Your task to perform on an android device: Open Wikipedia Image 0: 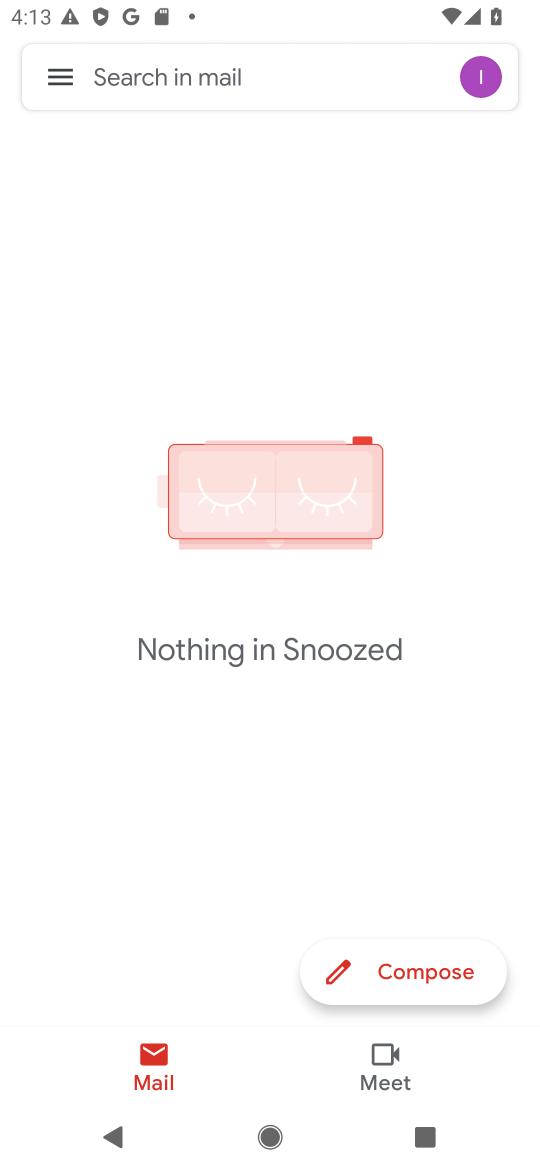
Step 0: press home button
Your task to perform on an android device: Open Wikipedia Image 1: 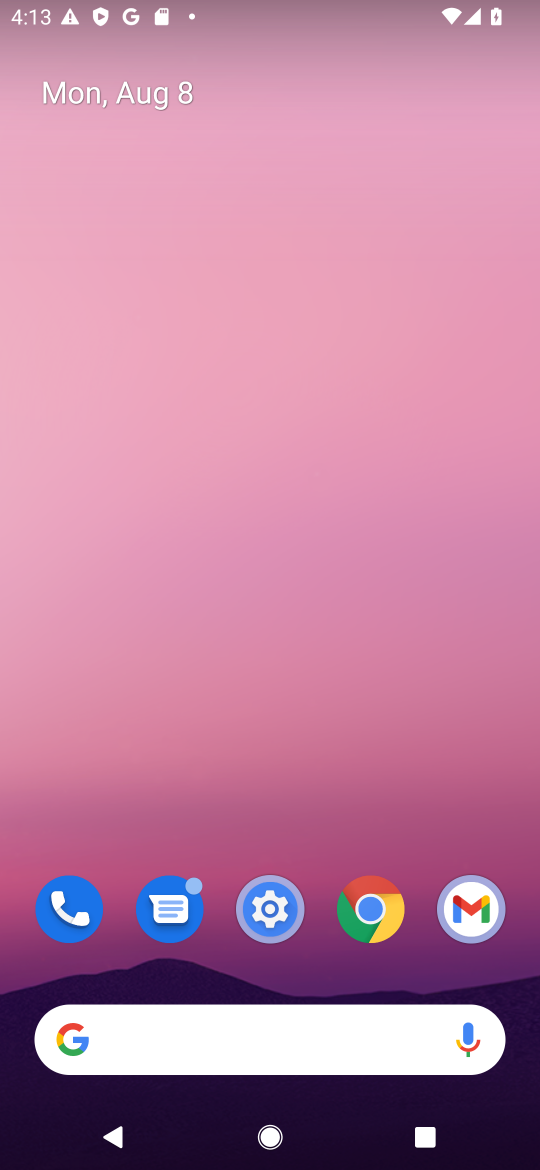
Step 1: click (372, 909)
Your task to perform on an android device: Open Wikipedia Image 2: 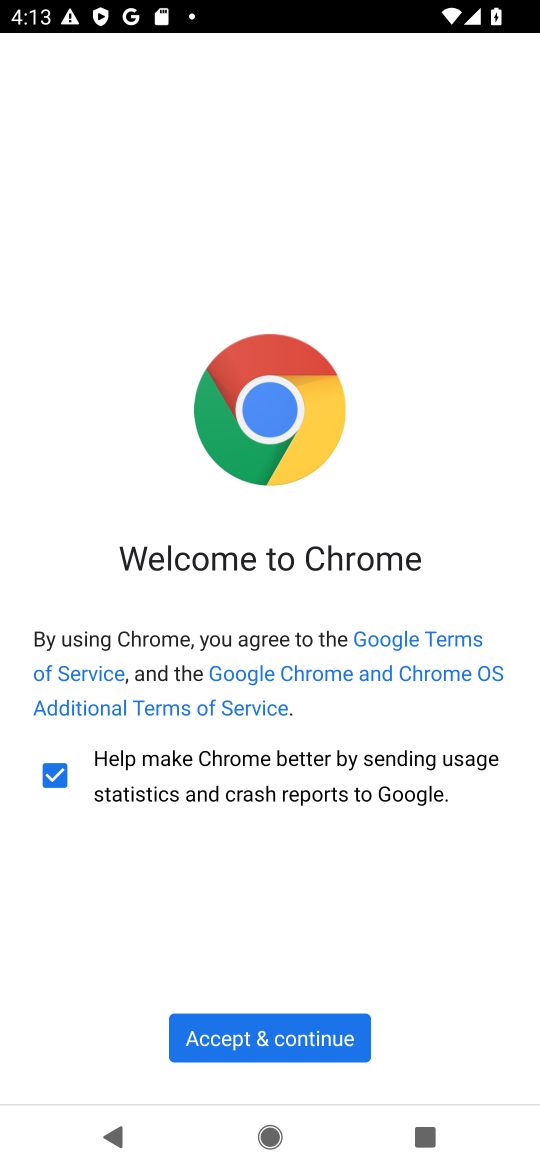
Step 2: click (259, 1039)
Your task to perform on an android device: Open Wikipedia Image 3: 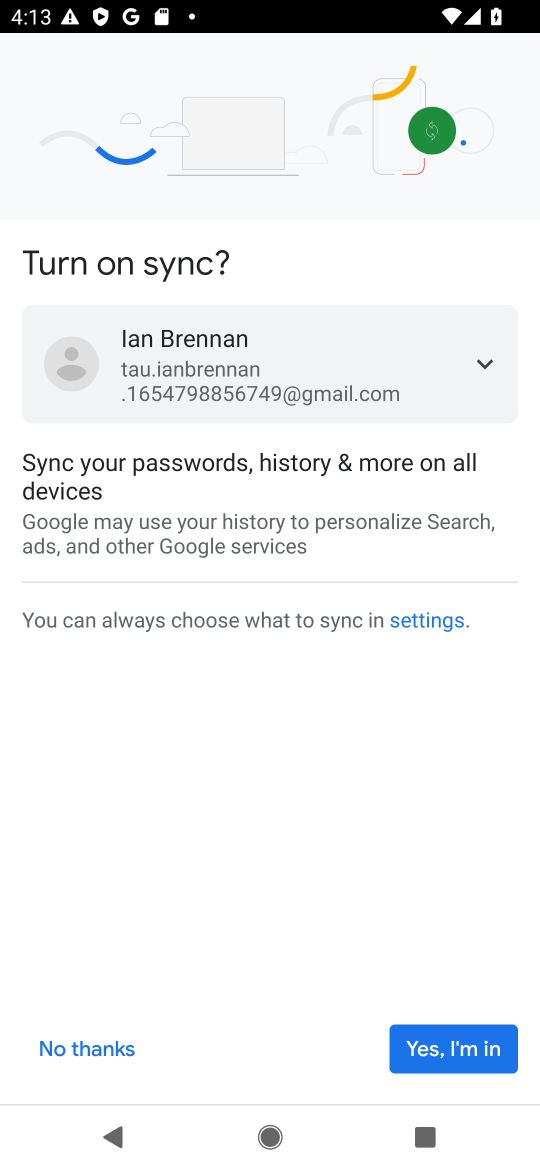
Step 3: click (466, 1046)
Your task to perform on an android device: Open Wikipedia Image 4: 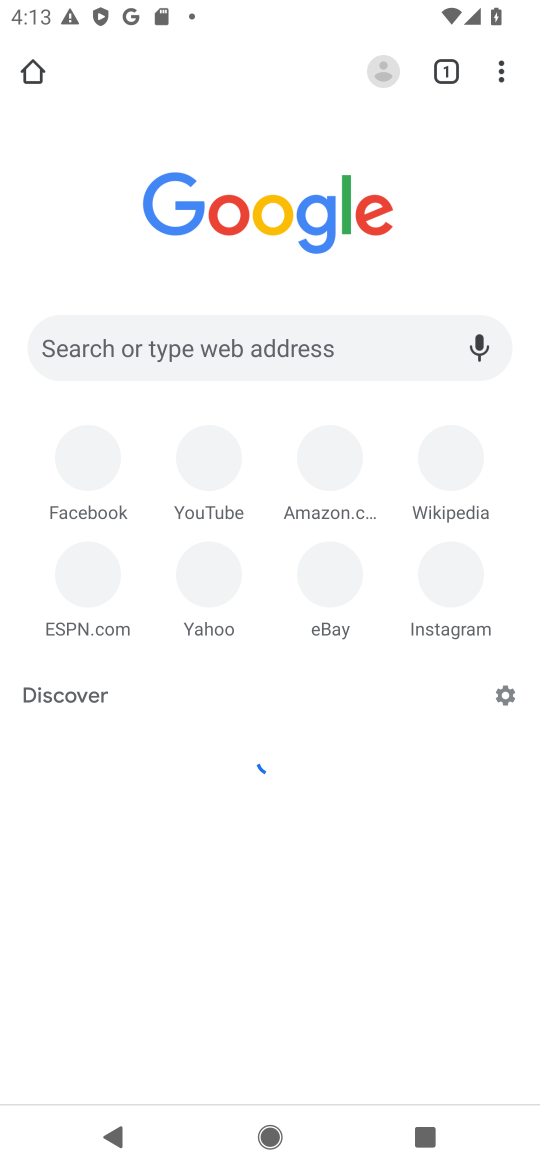
Step 4: click (441, 1045)
Your task to perform on an android device: Open Wikipedia Image 5: 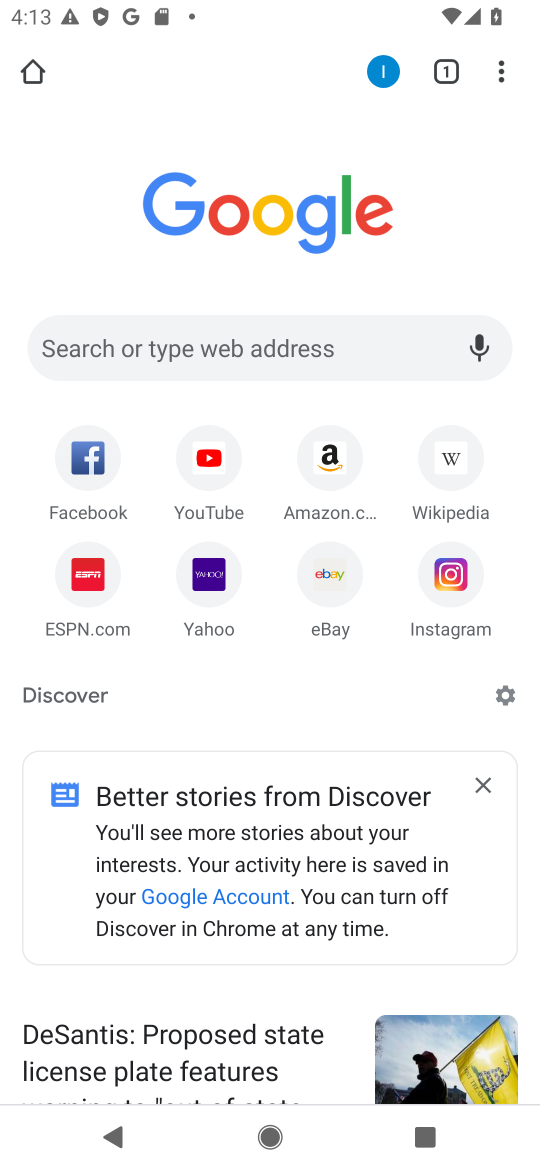
Step 5: click (457, 464)
Your task to perform on an android device: Open Wikipedia Image 6: 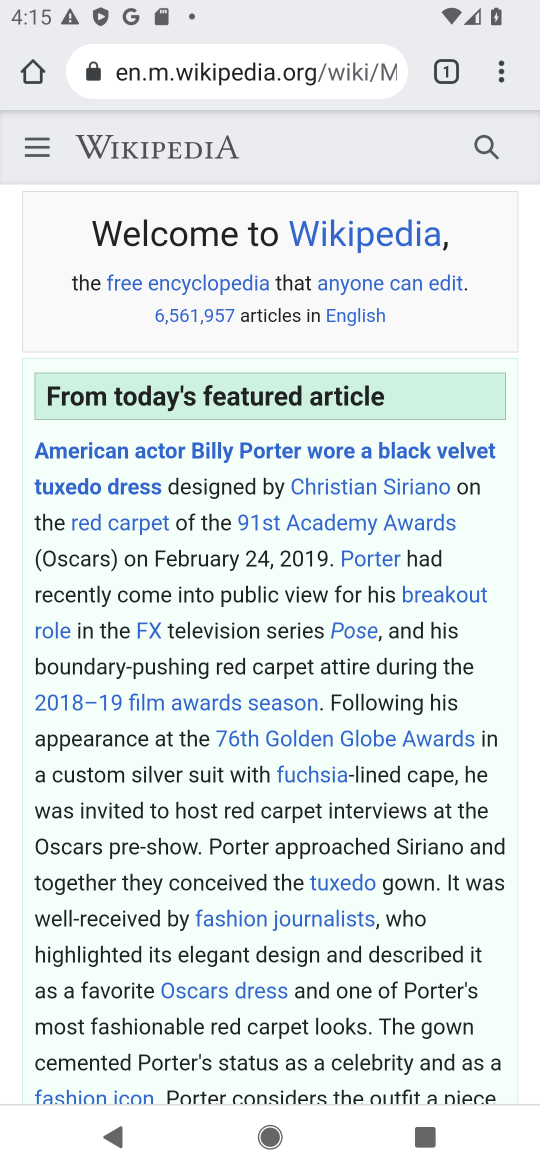
Step 6: task complete